Your task to perform on an android device: Check out the new ikea catalog. Image 0: 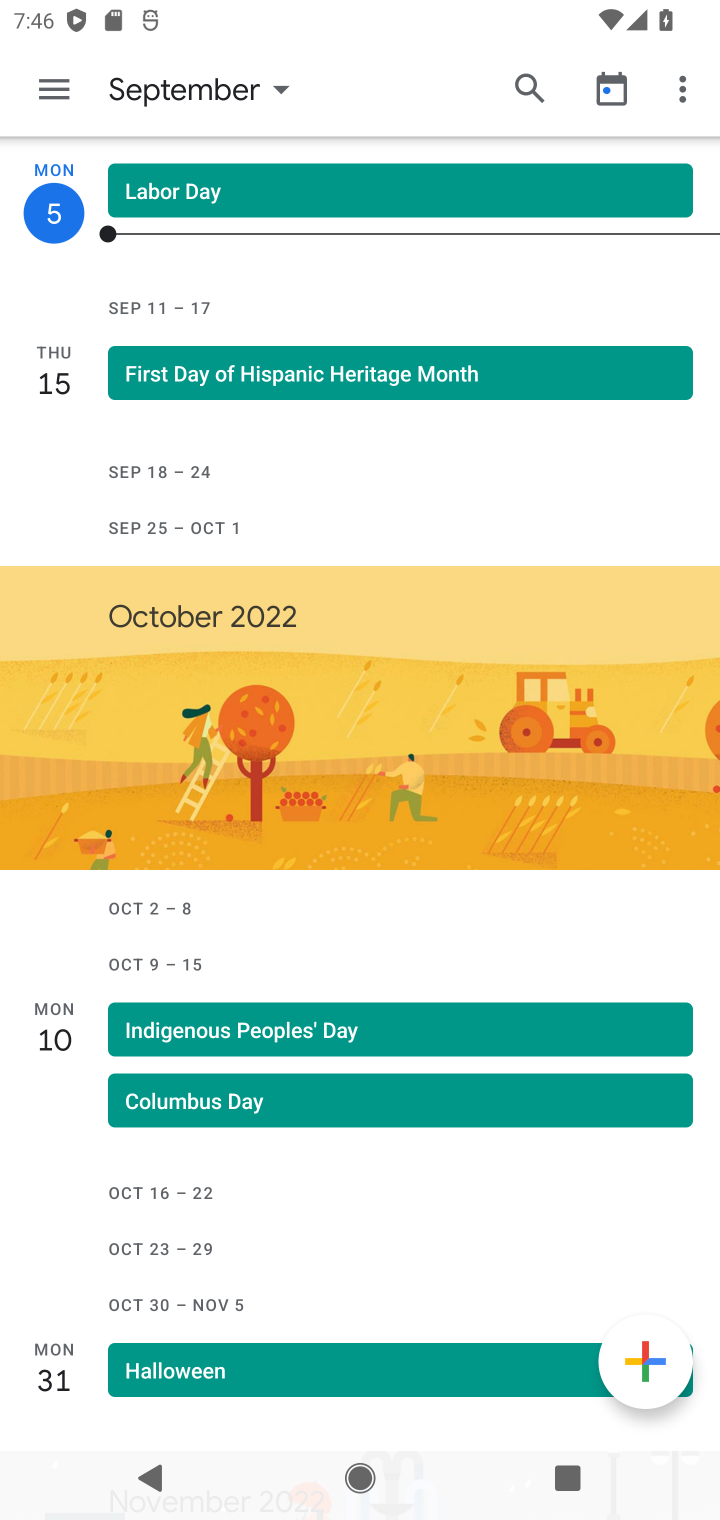
Step 0: press home button
Your task to perform on an android device: Check out the new ikea catalog. Image 1: 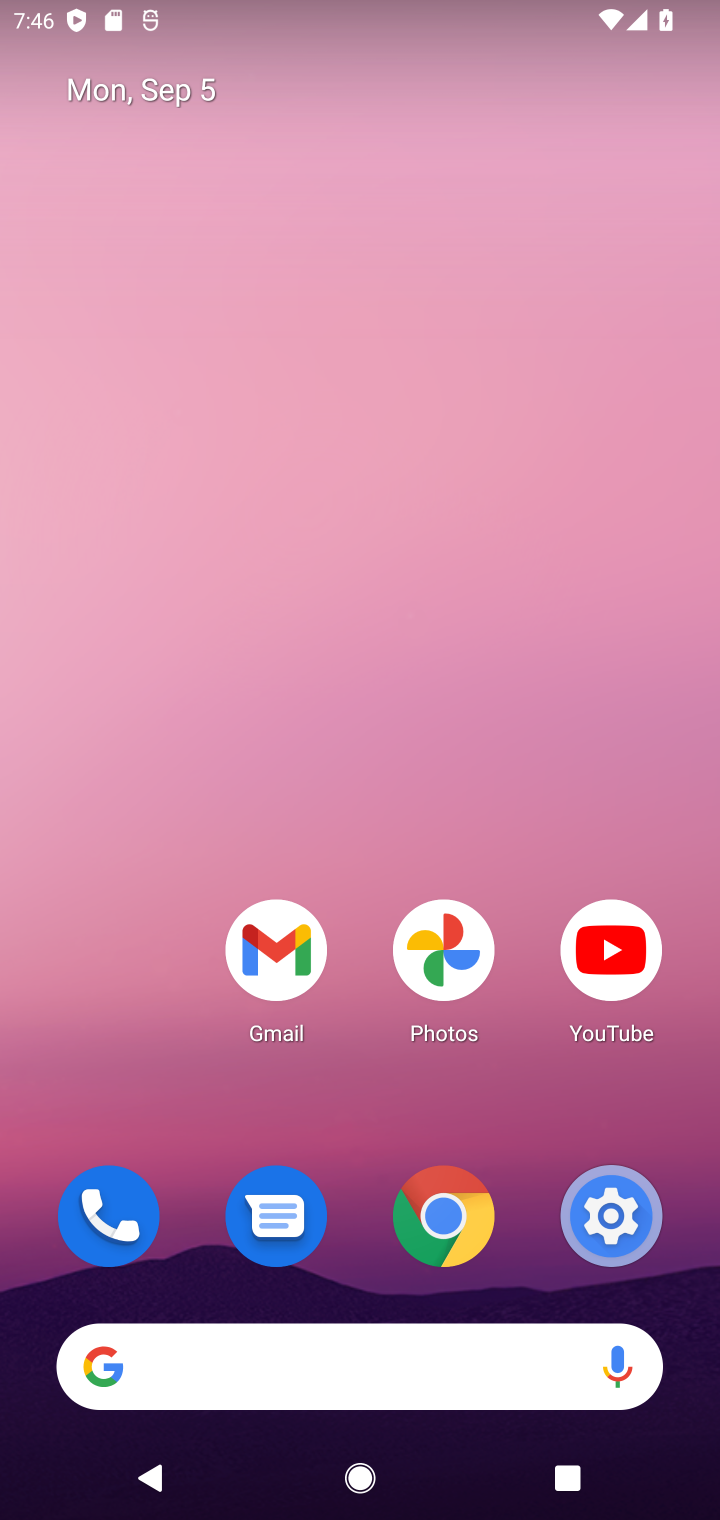
Step 1: click (292, 1365)
Your task to perform on an android device: Check out the new ikea catalog. Image 2: 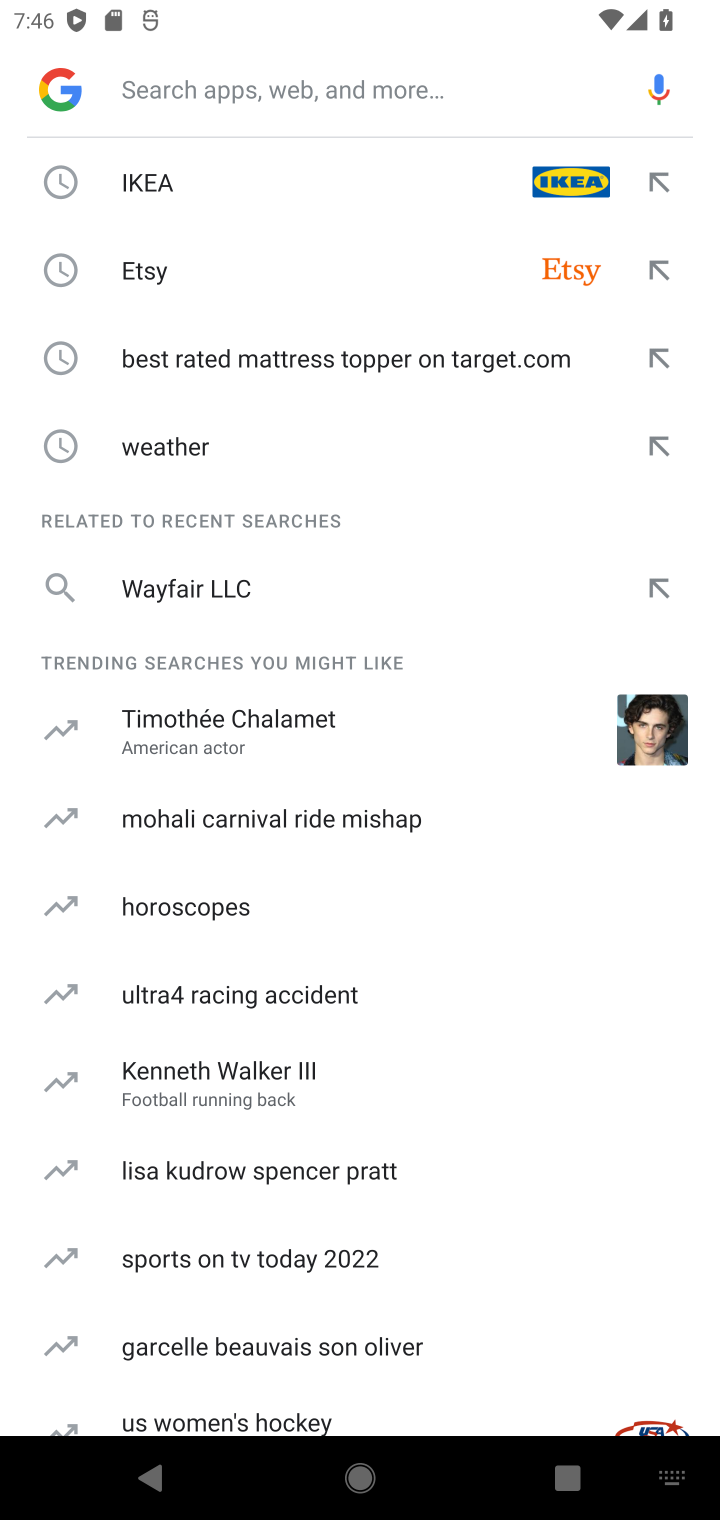
Step 2: click (132, 171)
Your task to perform on an android device: Check out the new ikea catalog. Image 3: 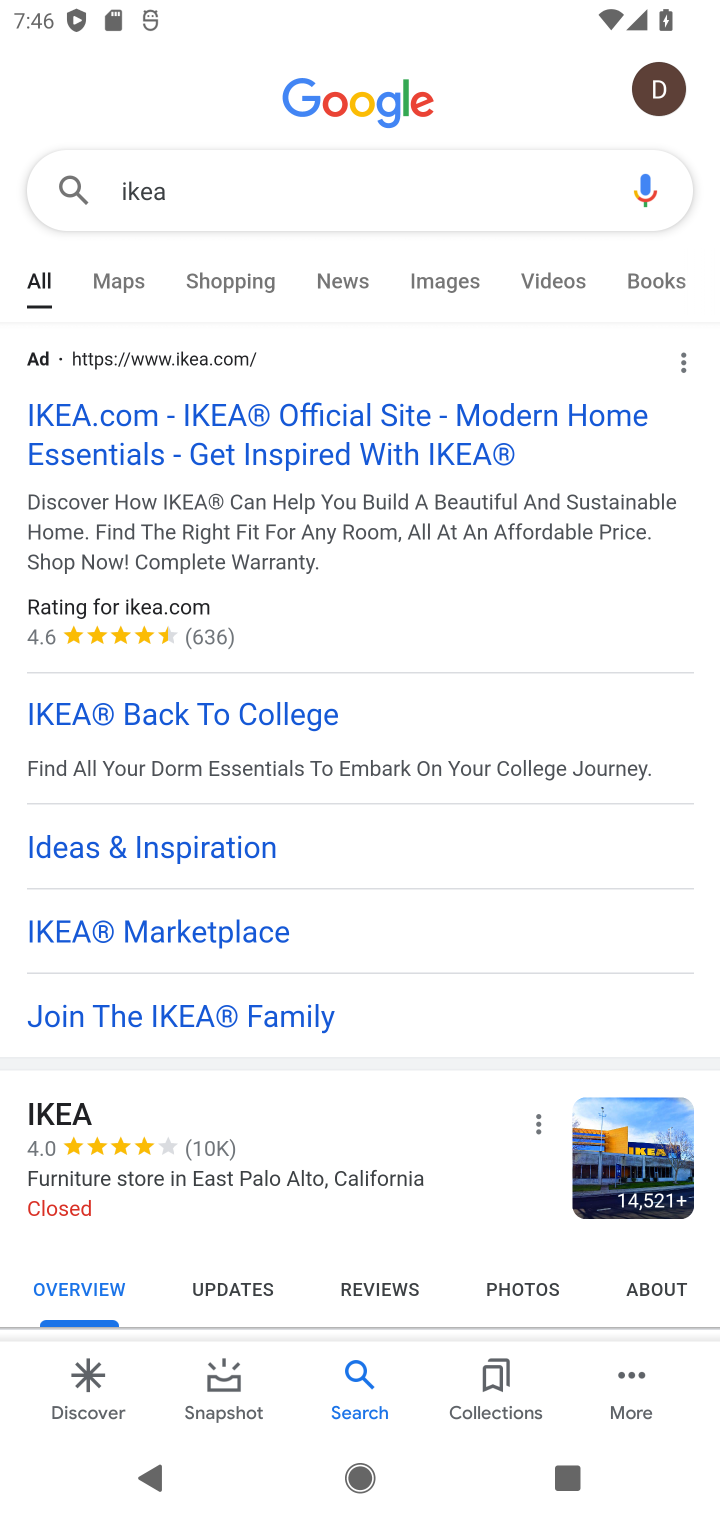
Step 3: click (289, 424)
Your task to perform on an android device: Check out the new ikea catalog. Image 4: 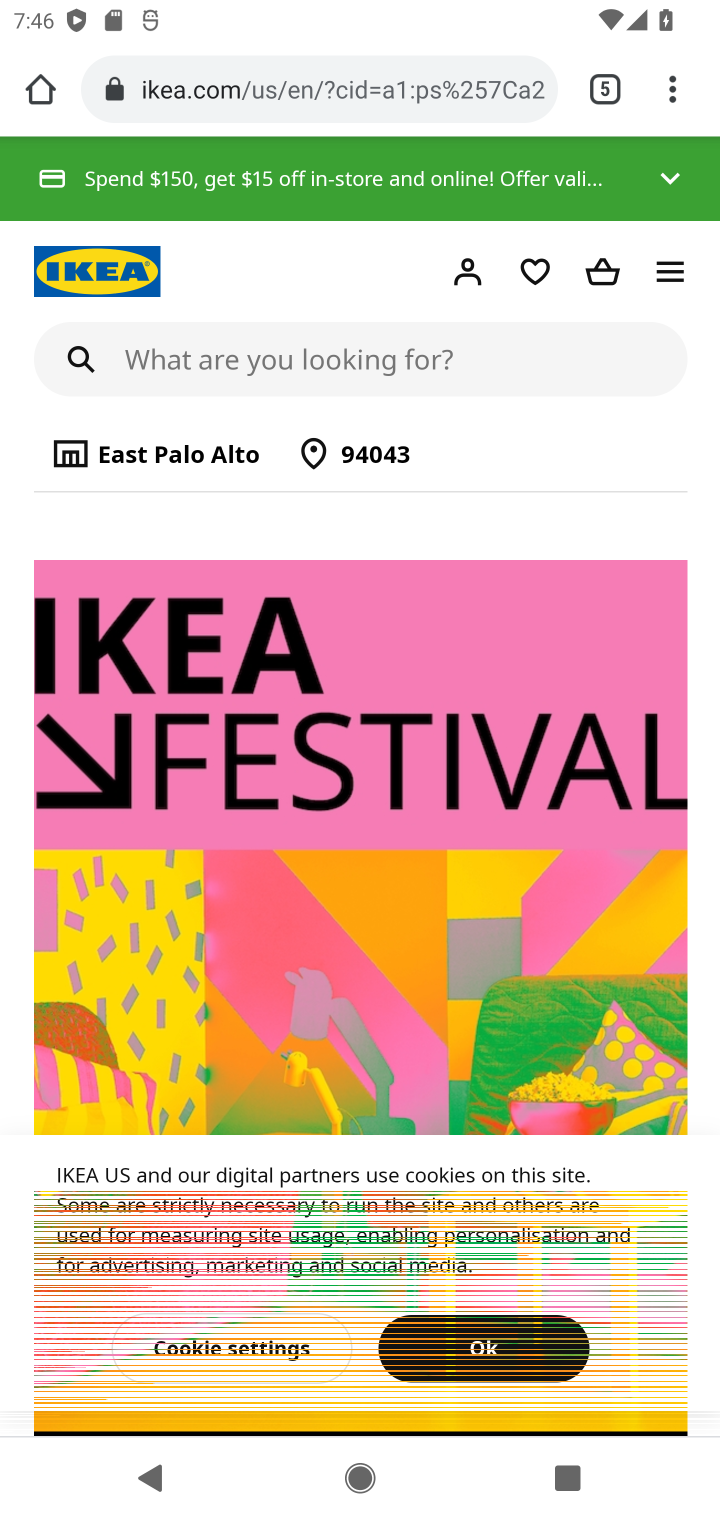
Step 4: click (681, 274)
Your task to perform on an android device: Check out the new ikea catalog. Image 5: 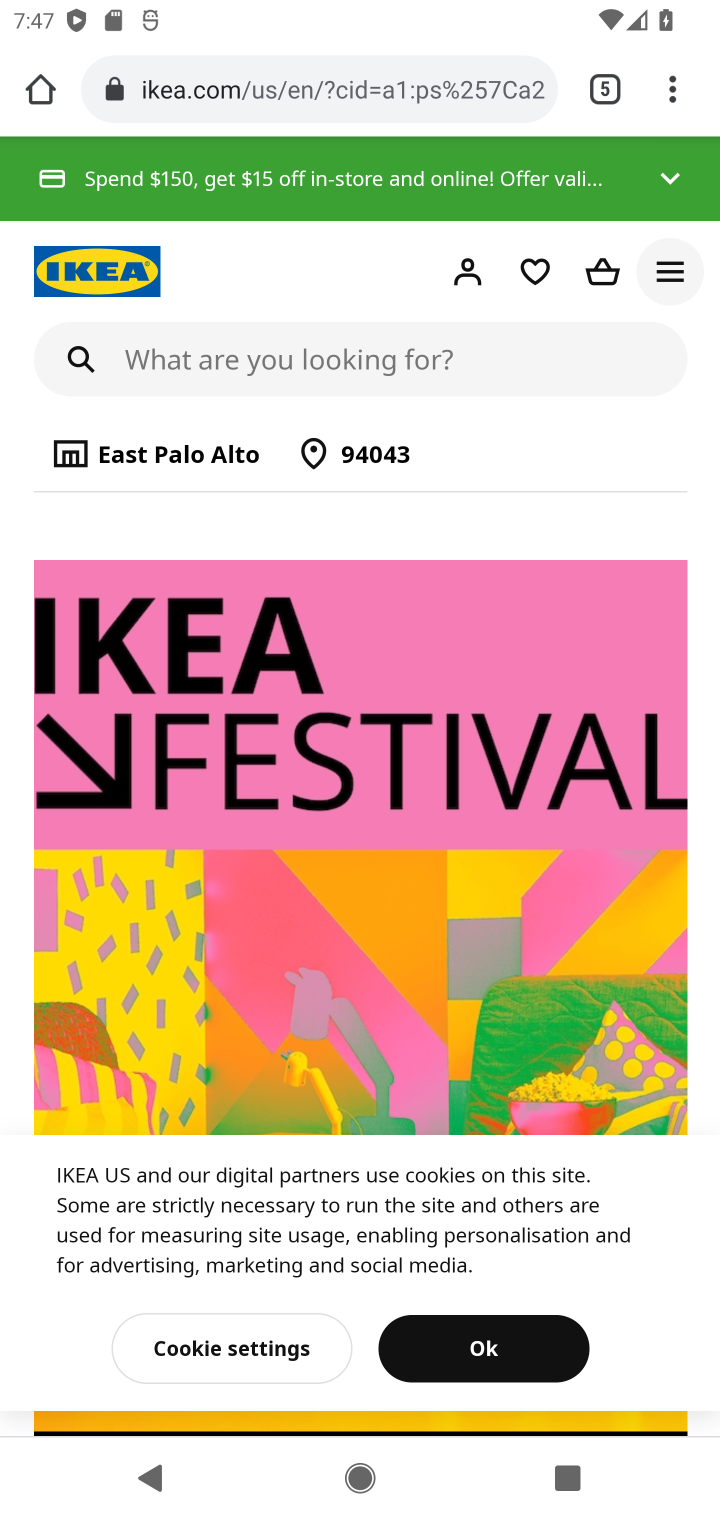
Step 5: click (679, 274)
Your task to perform on an android device: Check out the new ikea catalog. Image 6: 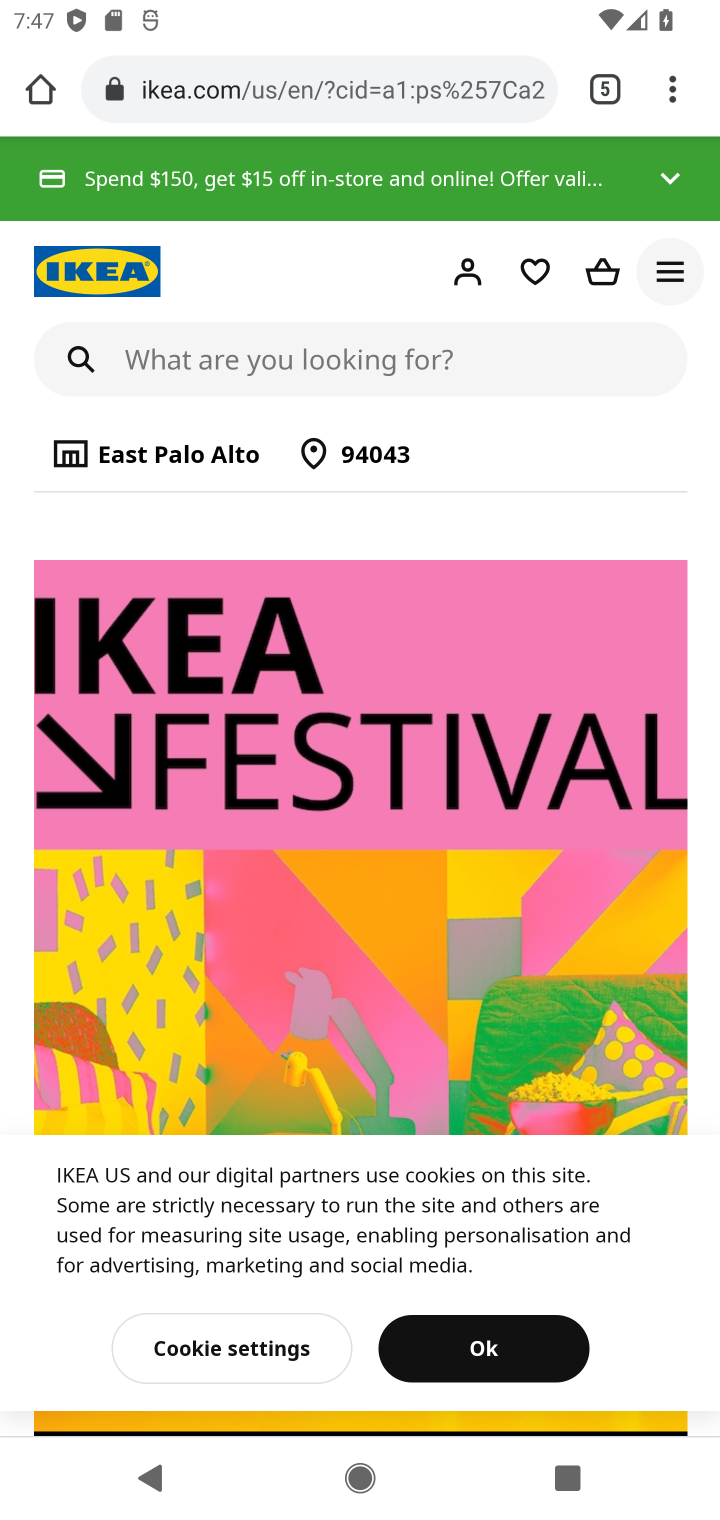
Step 6: click (413, 1350)
Your task to perform on an android device: Check out the new ikea catalog. Image 7: 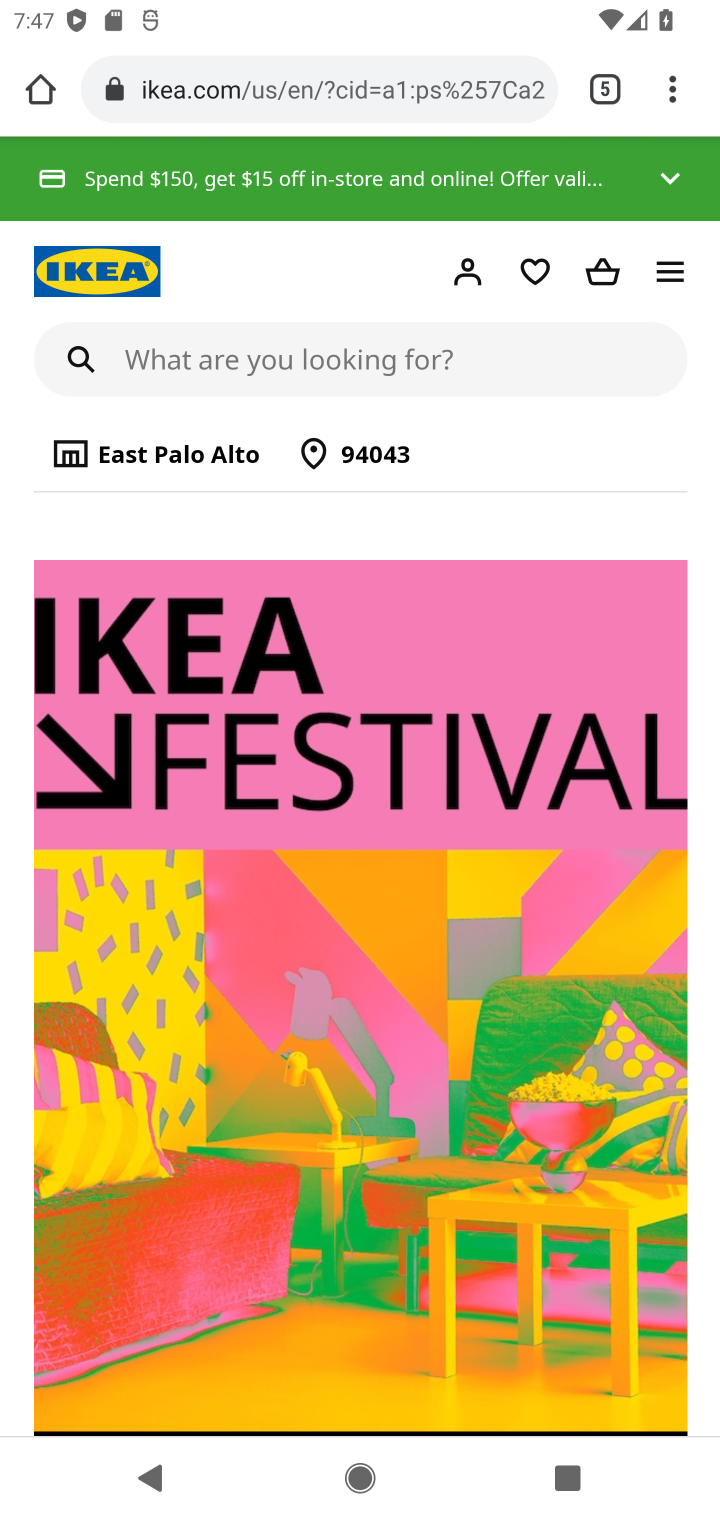
Step 7: click (671, 294)
Your task to perform on an android device: Check out the new ikea catalog. Image 8: 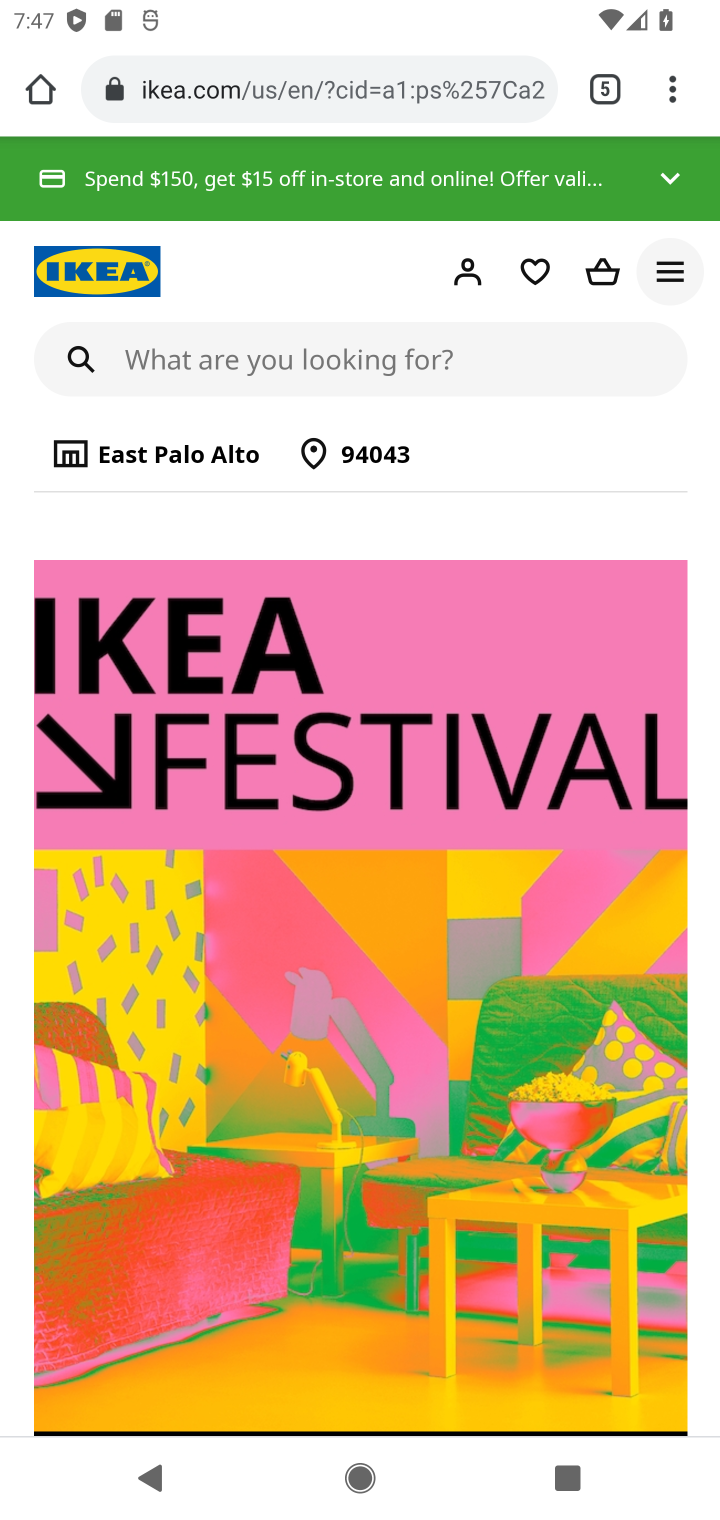
Step 8: click (662, 279)
Your task to perform on an android device: Check out the new ikea catalog. Image 9: 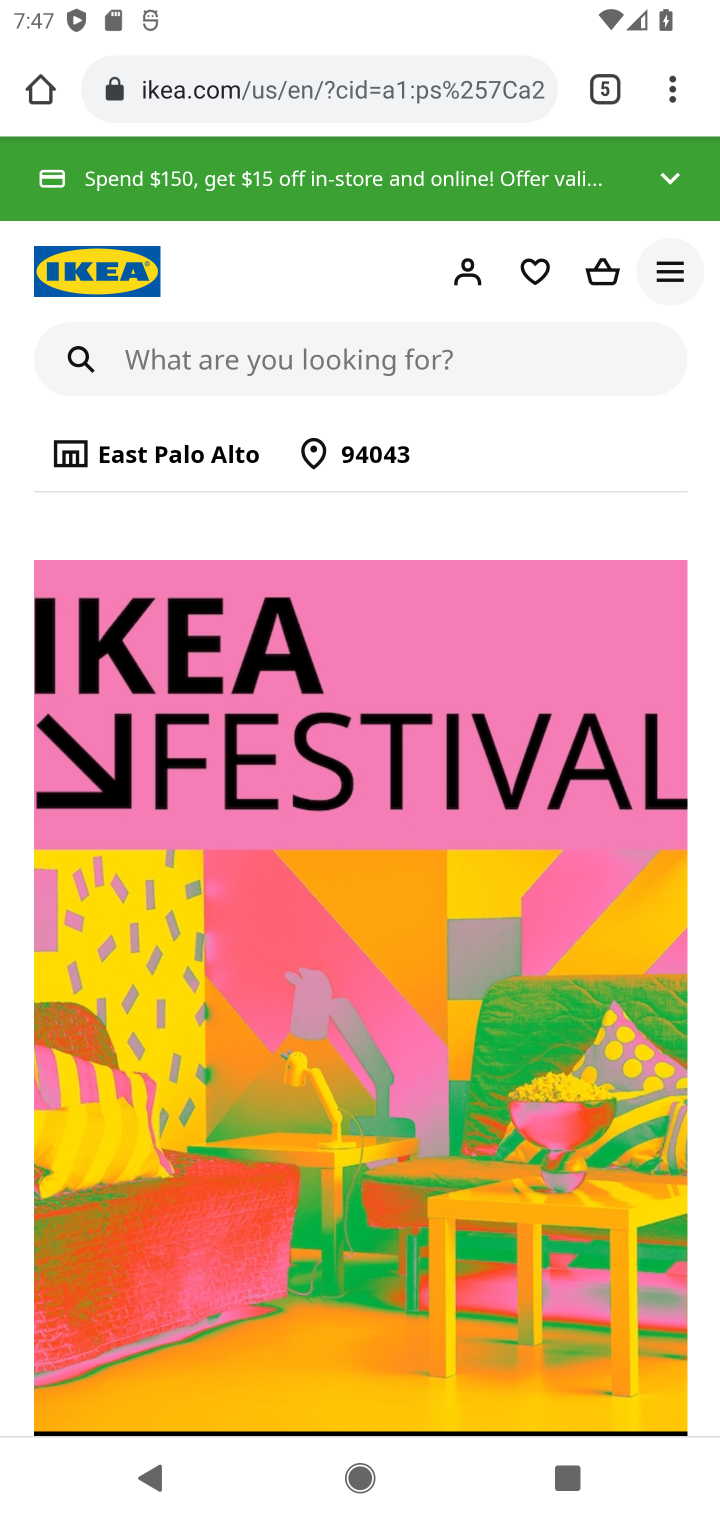
Step 9: click (674, 268)
Your task to perform on an android device: Check out the new ikea catalog. Image 10: 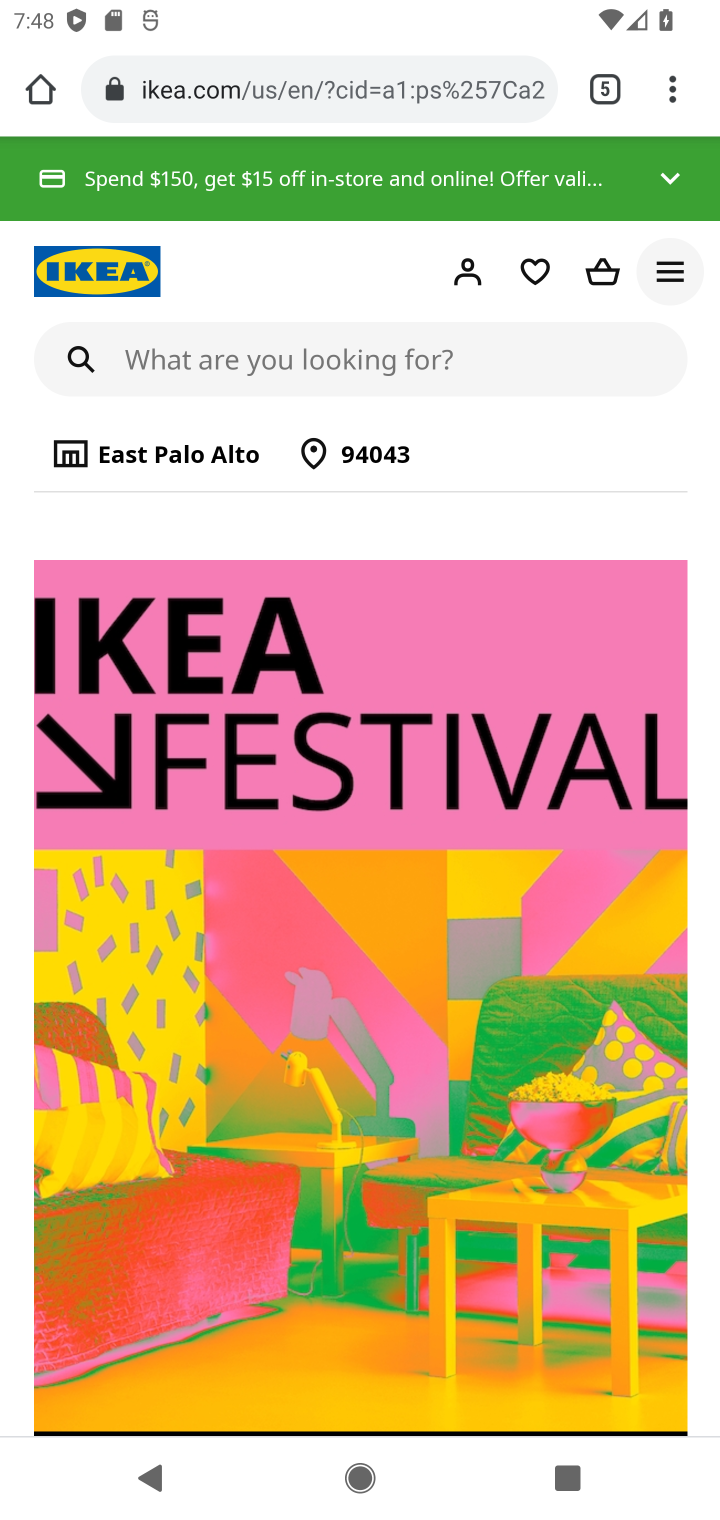
Step 10: click (674, 268)
Your task to perform on an android device: Check out the new ikea catalog. Image 11: 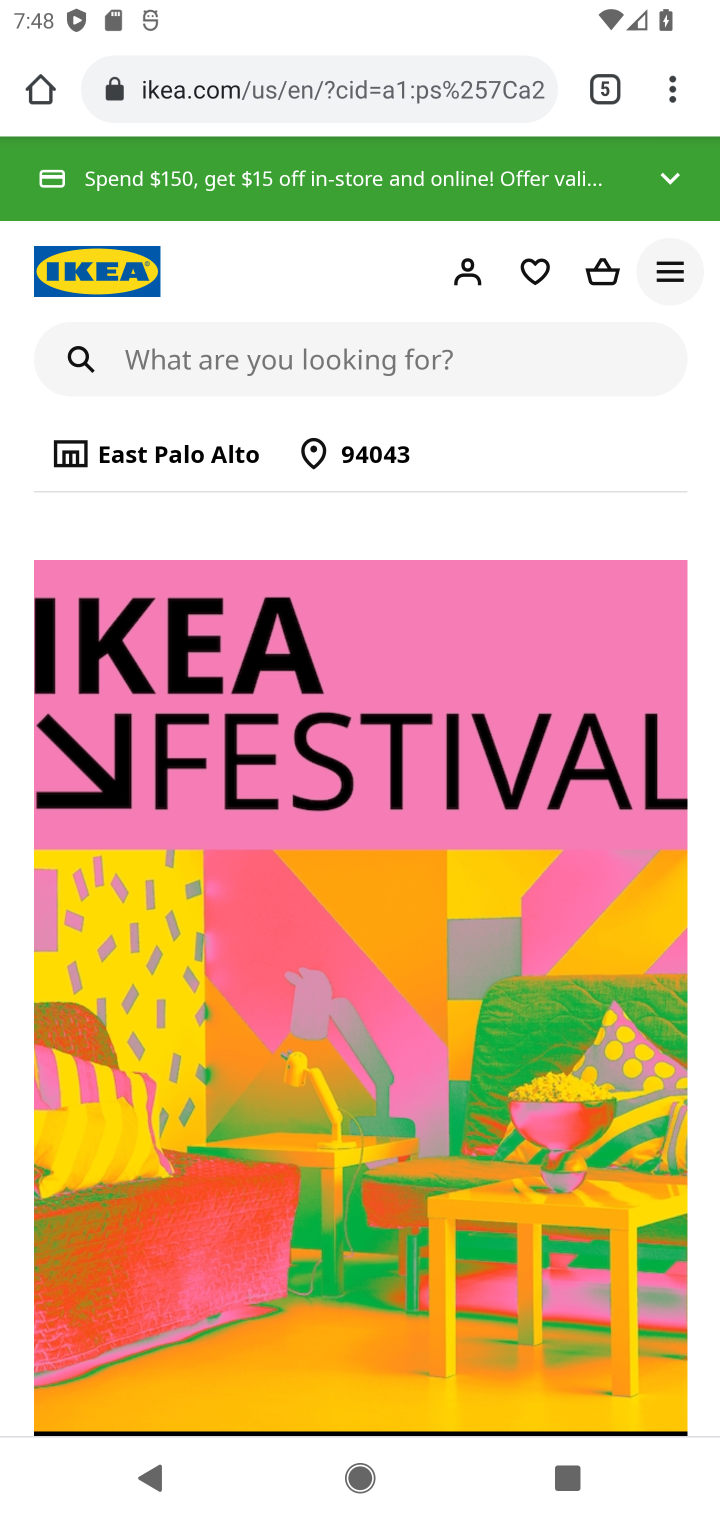
Step 11: click (674, 268)
Your task to perform on an android device: Check out the new ikea catalog. Image 12: 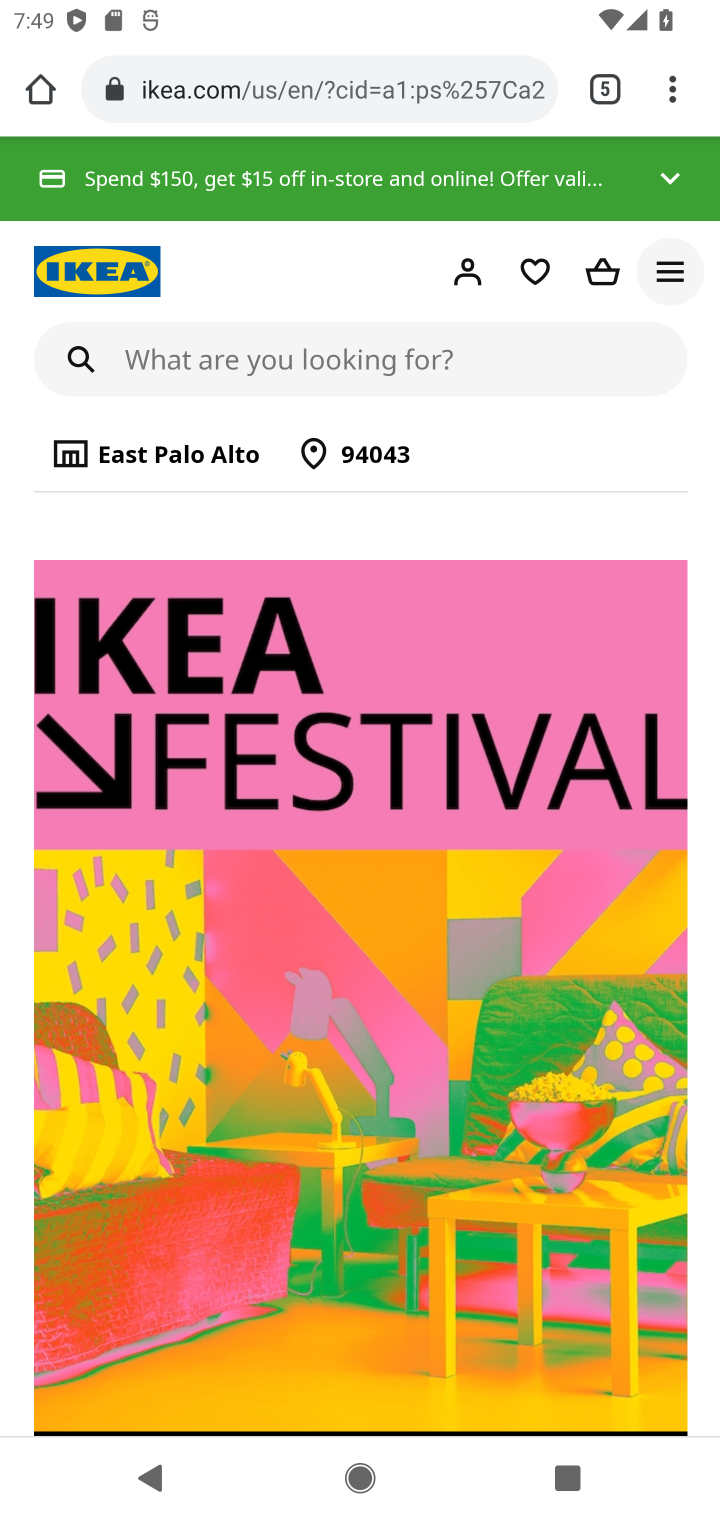
Step 12: click (674, 268)
Your task to perform on an android device: Check out the new ikea catalog. Image 13: 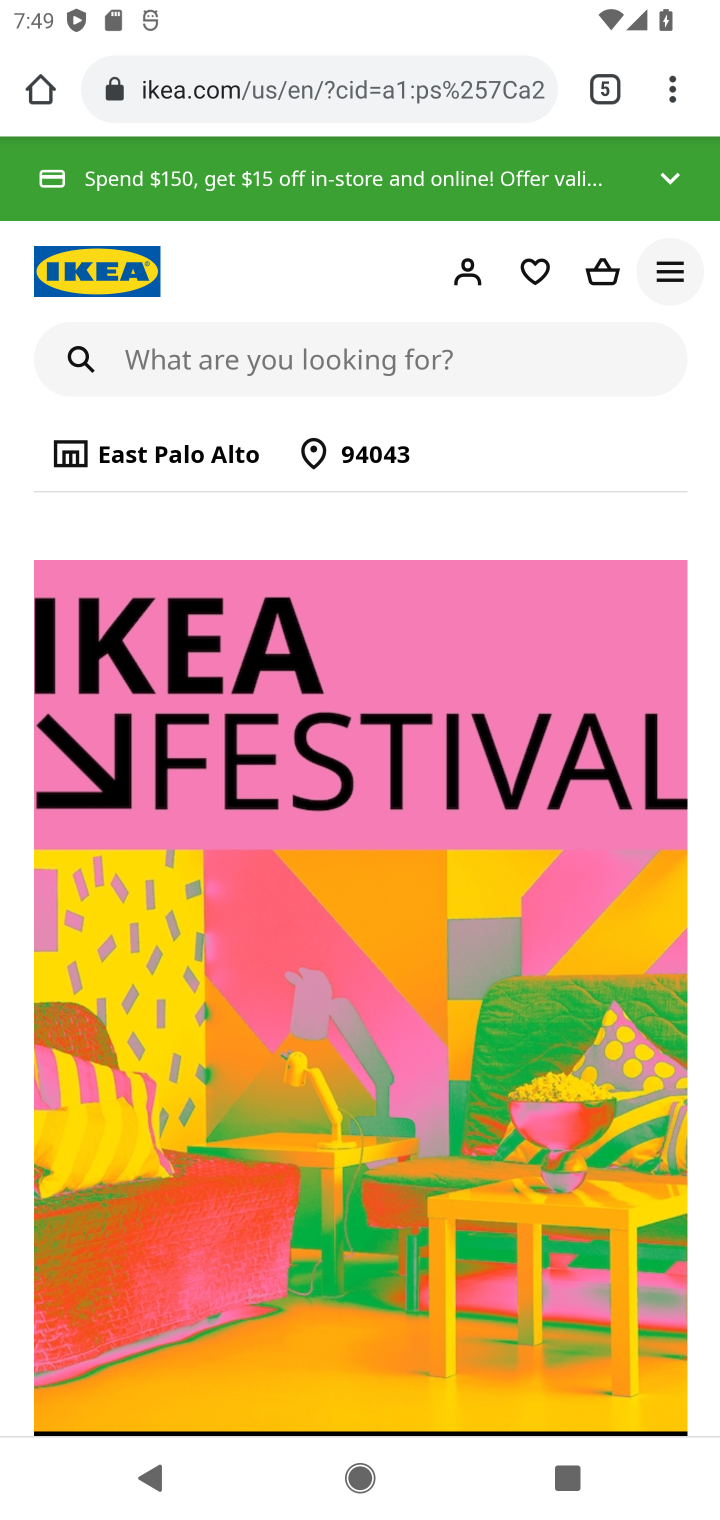
Step 13: click (674, 268)
Your task to perform on an android device: Check out the new ikea catalog. Image 14: 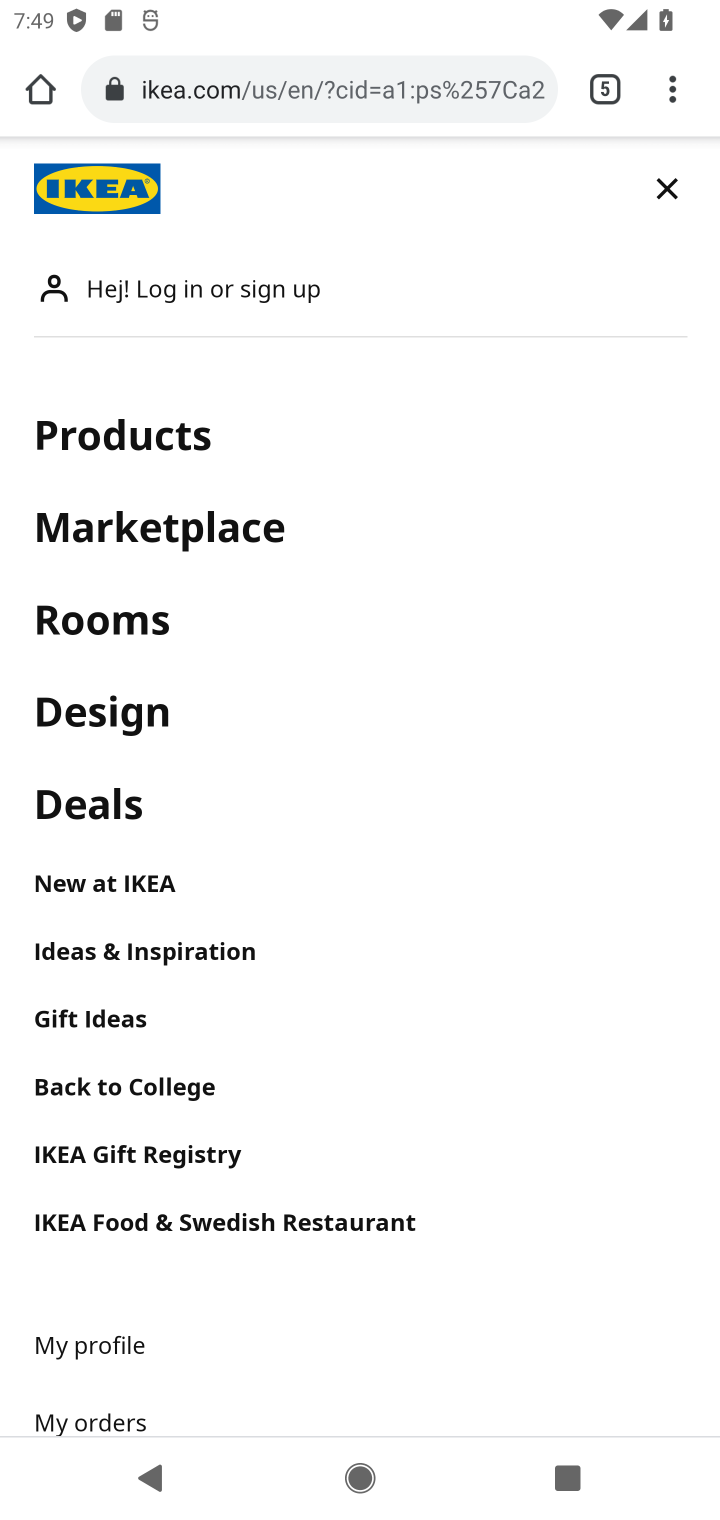
Step 14: task complete